Your task to perform on an android device: What is the recent news? Image 0: 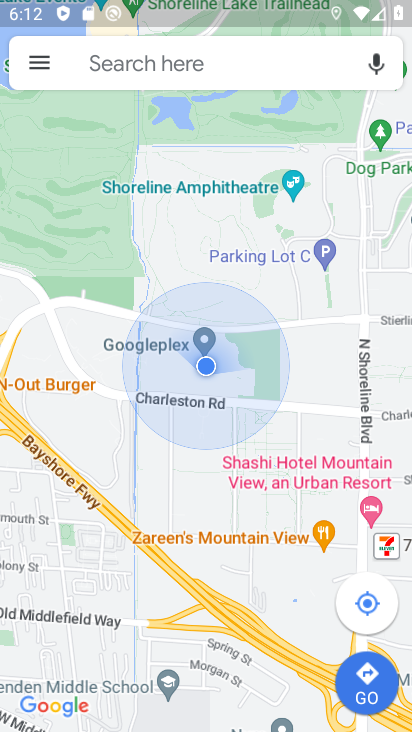
Step 0: press home button
Your task to perform on an android device: What is the recent news? Image 1: 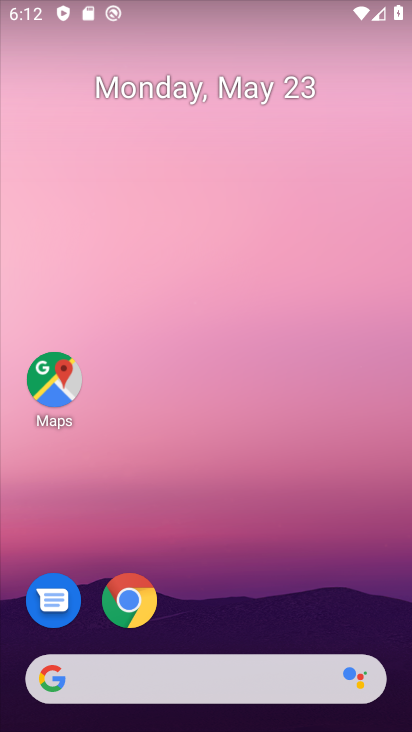
Step 1: drag from (271, 609) to (259, 242)
Your task to perform on an android device: What is the recent news? Image 2: 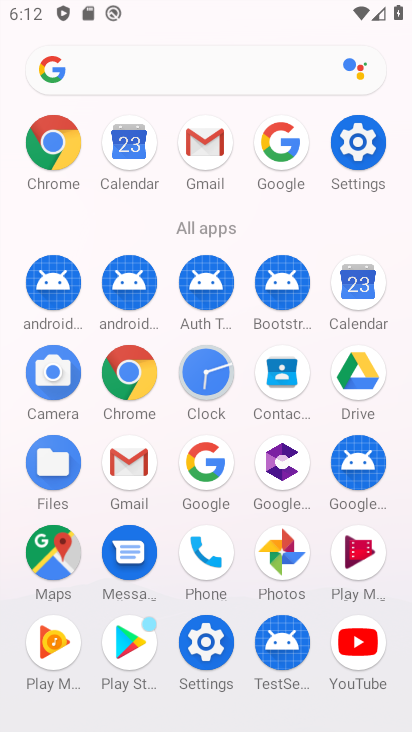
Step 2: click (212, 470)
Your task to perform on an android device: What is the recent news? Image 3: 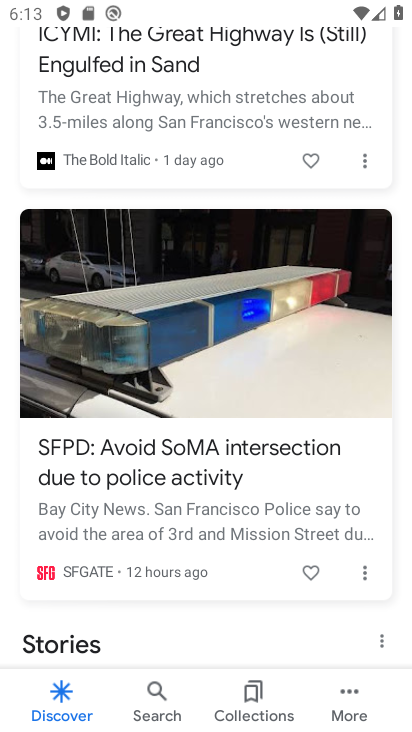
Step 3: task complete